Your task to perform on an android device: turn off priority inbox in the gmail app Image 0: 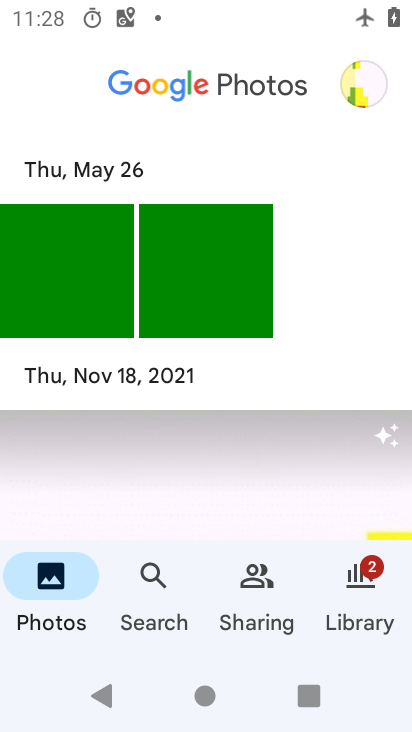
Step 0: press home button
Your task to perform on an android device: turn off priority inbox in the gmail app Image 1: 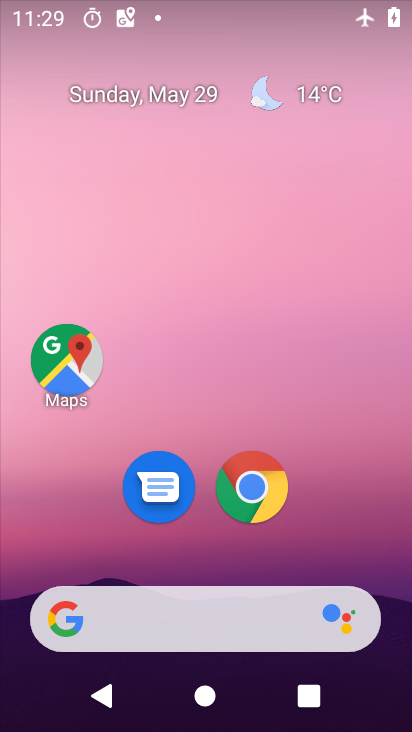
Step 1: drag from (397, 677) to (396, 6)
Your task to perform on an android device: turn off priority inbox in the gmail app Image 2: 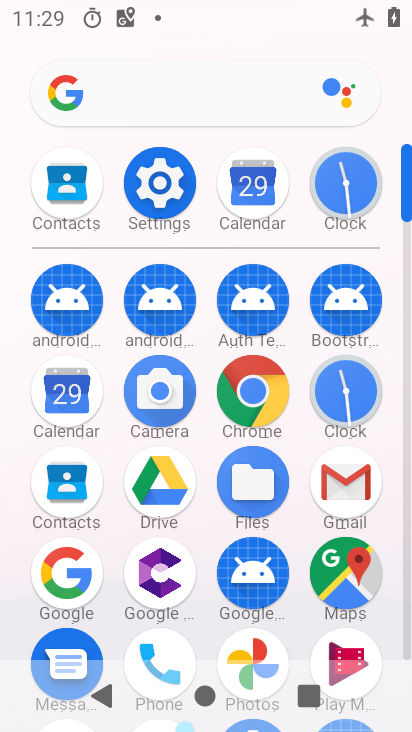
Step 2: click (166, 180)
Your task to perform on an android device: turn off priority inbox in the gmail app Image 3: 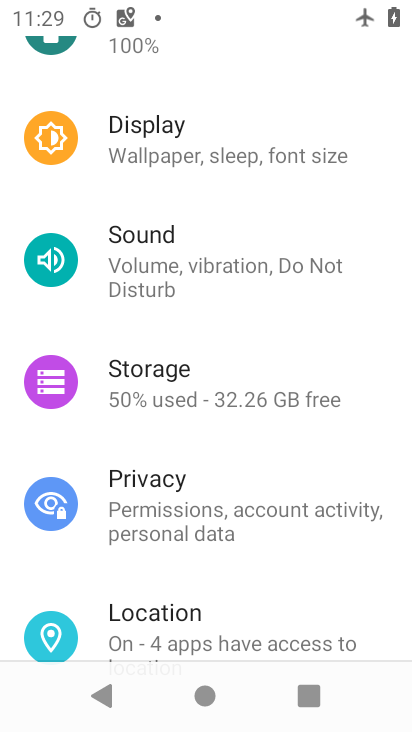
Step 3: drag from (269, 144) to (250, 596)
Your task to perform on an android device: turn off priority inbox in the gmail app Image 4: 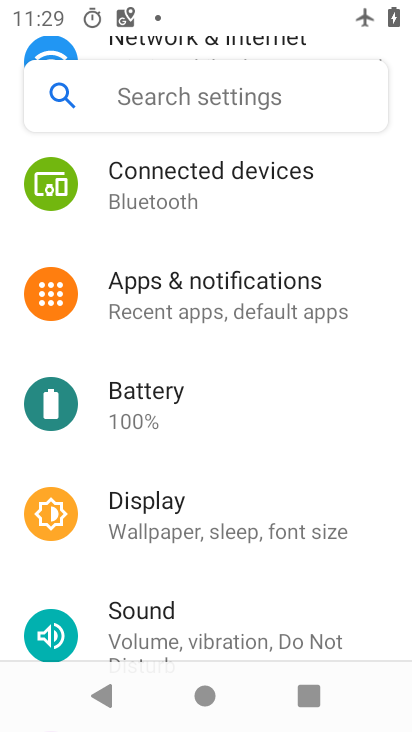
Step 4: drag from (336, 180) to (306, 612)
Your task to perform on an android device: turn off priority inbox in the gmail app Image 5: 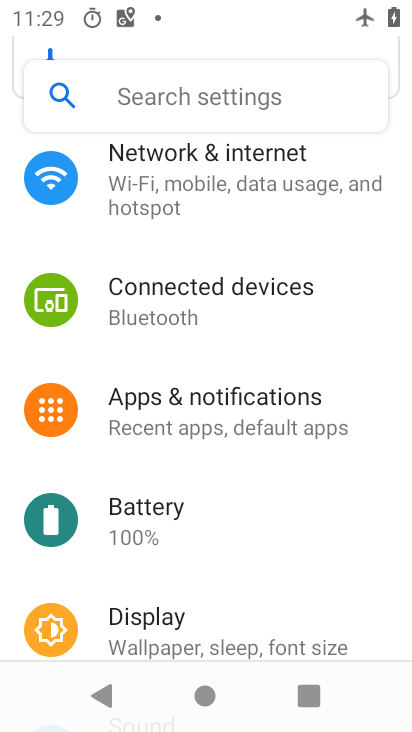
Step 5: click (228, 180)
Your task to perform on an android device: turn off priority inbox in the gmail app Image 6: 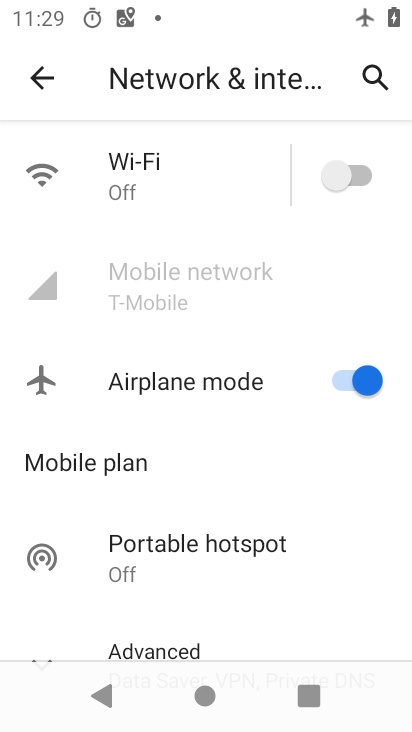
Step 6: click (343, 179)
Your task to perform on an android device: turn off priority inbox in the gmail app Image 7: 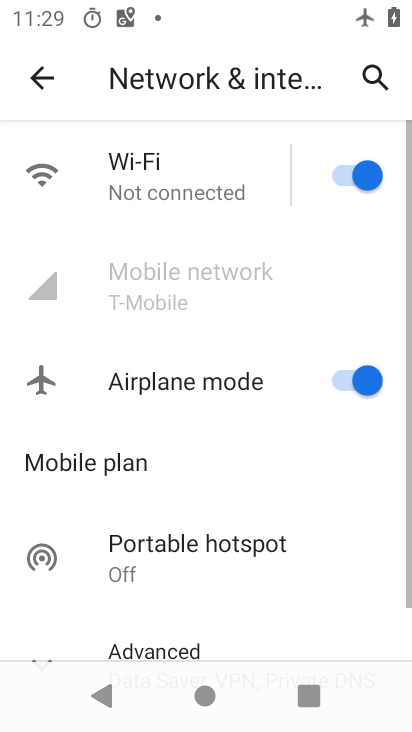
Step 7: click (335, 383)
Your task to perform on an android device: turn off priority inbox in the gmail app Image 8: 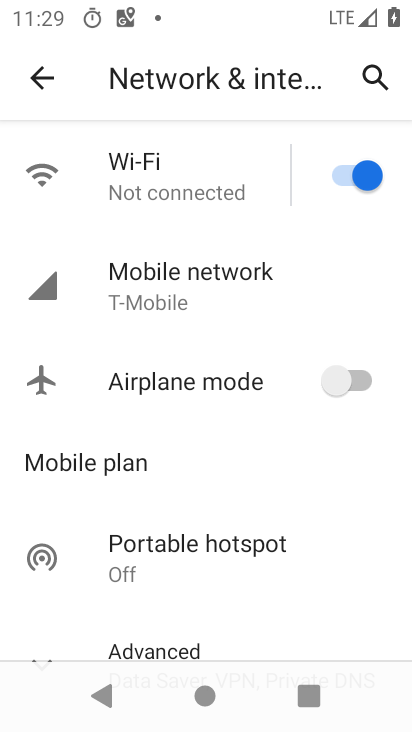
Step 8: click (32, 82)
Your task to perform on an android device: turn off priority inbox in the gmail app Image 9: 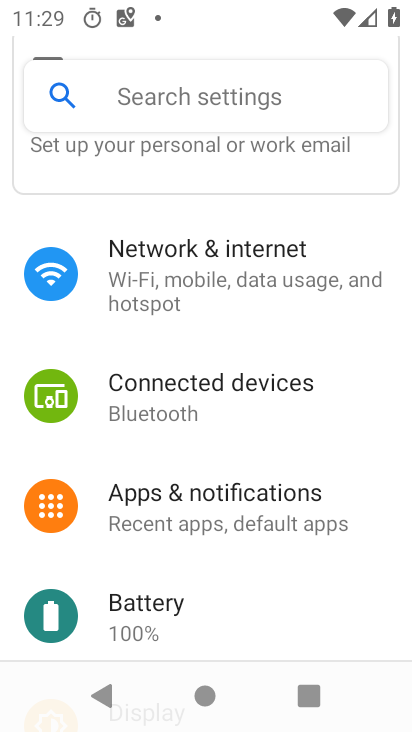
Step 9: press back button
Your task to perform on an android device: turn off priority inbox in the gmail app Image 10: 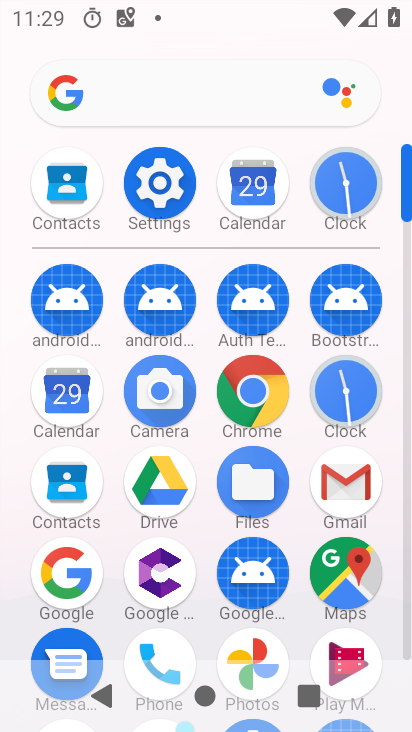
Step 10: click (343, 490)
Your task to perform on an android device: turn off priority inbox in the gmail app Image 11: 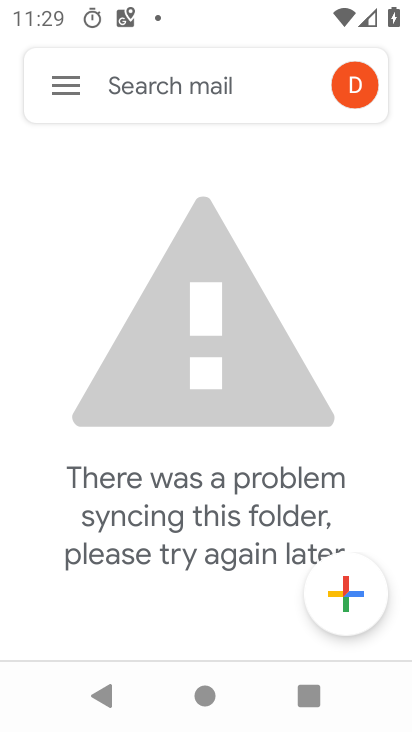
Step 11: click (67, 84)
Your task to perform on an android device: turn off priority inbox in the gmail app Image 12: 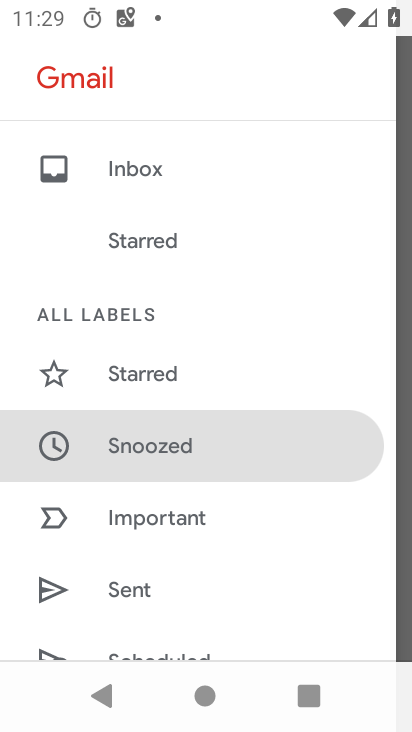
Step 12: drag from (254, 624) to (251, 260)
Your task to perform on an android device: turn off priority inbox in the gmail app Image 13: 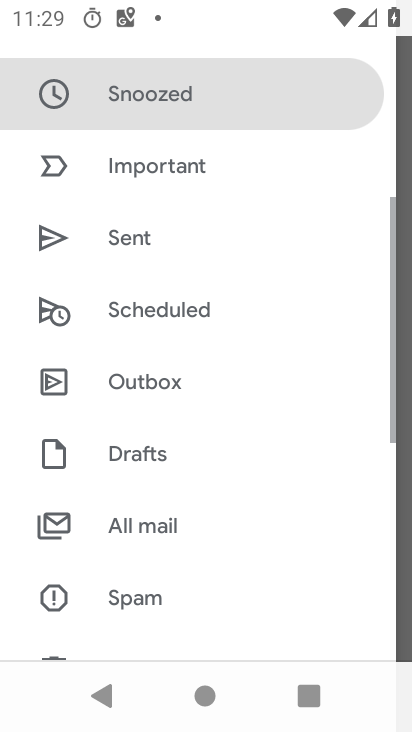
Step 13: drag from (304, 625) to (333, 201)
Your task to perform on an android device: turn off priority inbox in the gmail app Image 14: 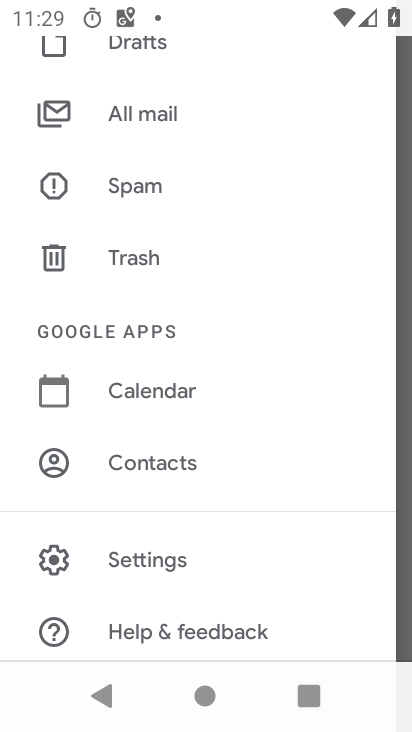
Step 14: drag from (292, 604) to (277, 322)
Your task to perform on an android device: turn off priority inbox in the gmail app Image 15: 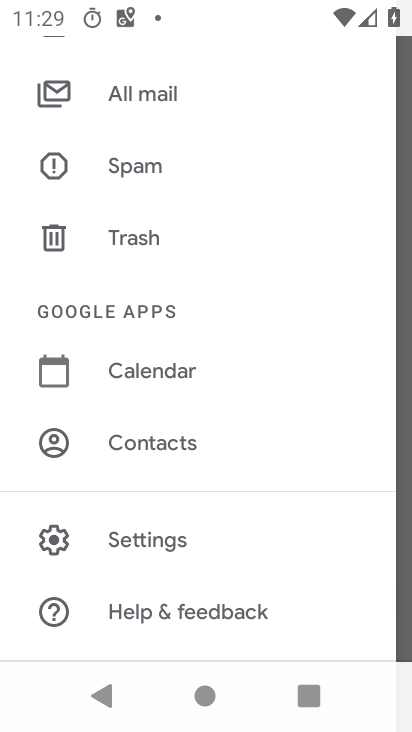
Step 15: click (157, 543)
Your task to perform on an android device: turn off priority inbox in the gmail app Image 16: 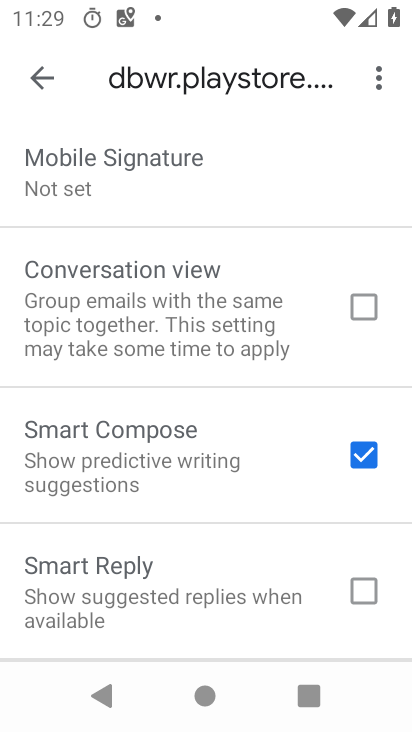
Step 16: click (355, 448)
Your task to perform on an android device: turn off priority inbox in the gmail app Image 17: 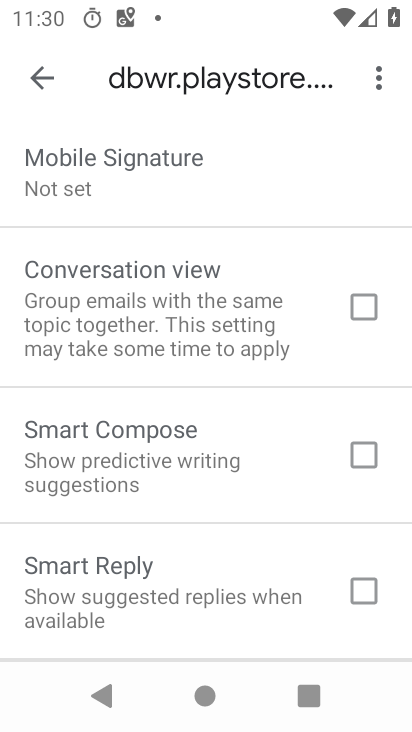
Step 17: drag from (193, 615) to (255, 277)
Your task to perform on an android device: turn off priority inbox in the gmail app Image 18: 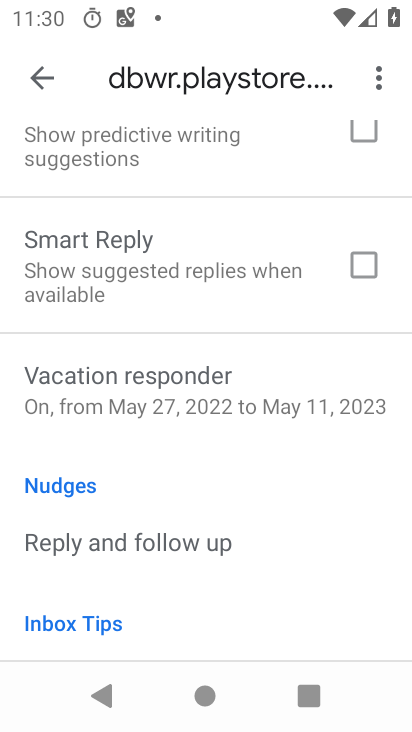
Step 18: drag from (200, 262) to (160, 562)
Your task to perform on an android device: turn off priority inbox in the gmail app Image 19: 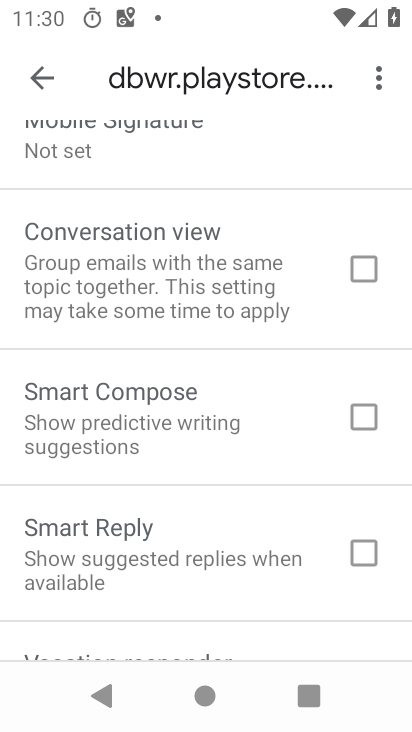
Step 19: drag from (232, 180) to (202, 520)
Your task to perform on an android device: turn off priority inbox in the gmail app Image 20: 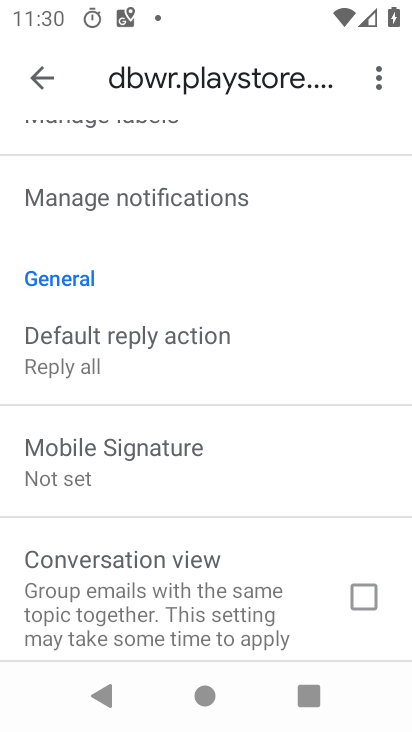
Step 20: drag from (224, 242) to (214, 528)
Your task to perform on an android device: turn off priority inbox in the gmail app Image 21: 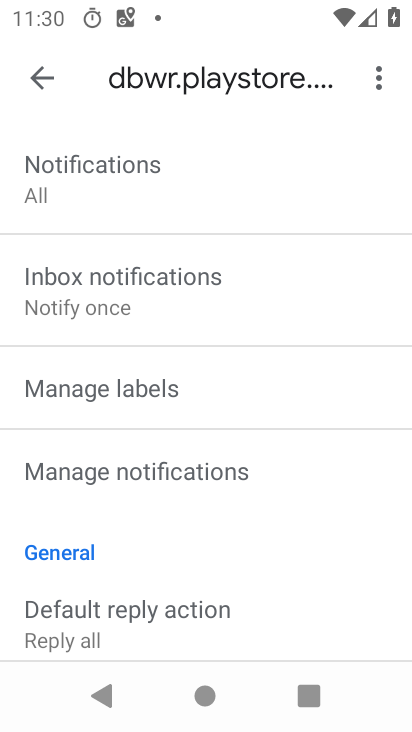
Step 21: click (80, 293)
Your task to perform on an android device: turn off priority inbox in the gmail app Image 22: 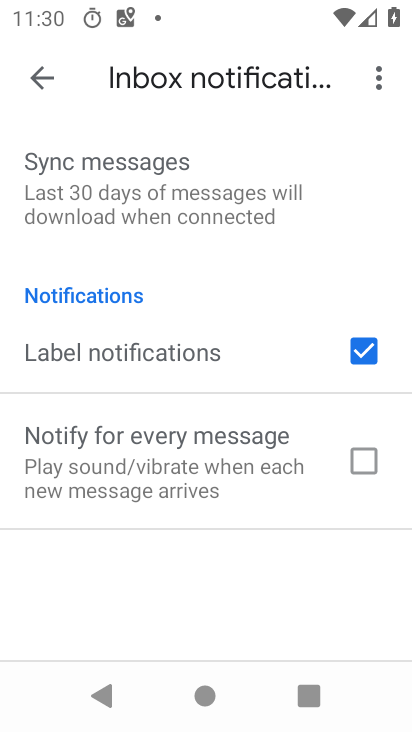
Step 22: click (42, 75)
Your task to perform on an android device: turn off priority inbox in the gmail app Image 23: 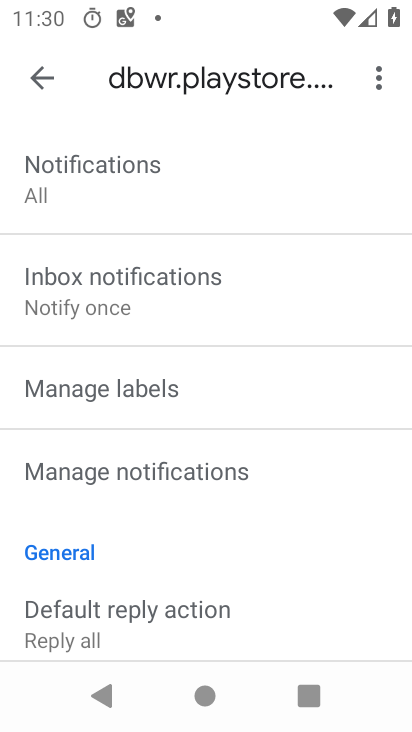
Step 23: click (35, 77)
Your task to perform on an android device: turn off priority inbox in the gmail app Image 24: 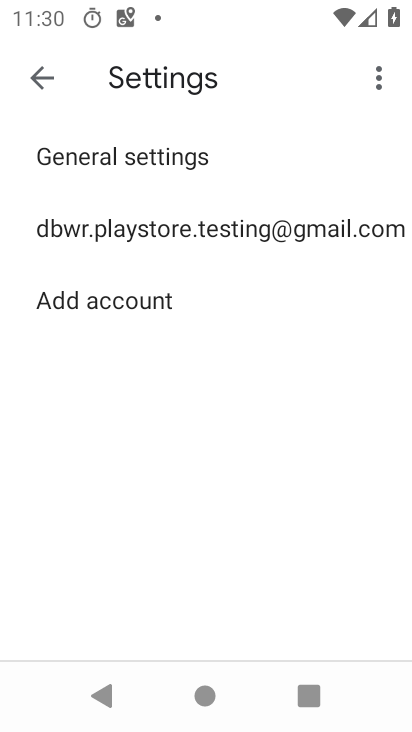
Step 24: click (68, 226)
Your task to perform on an android device: turn off priority inbox in the gmail app Image 25: 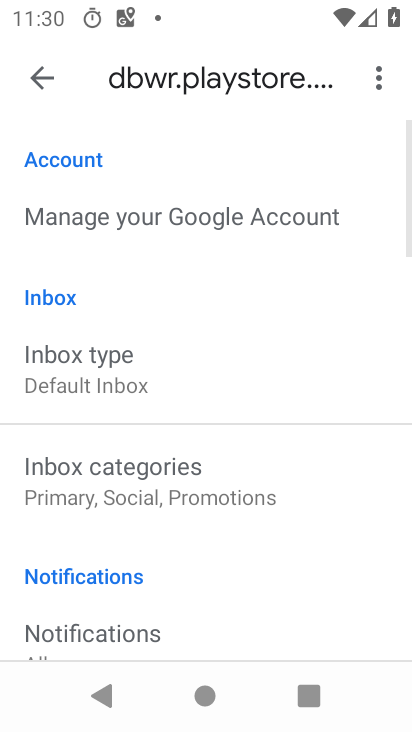
Step 25: click (78, 361)
Your task to perform on an android device: turn off priority inbox in the gmail app Image 26: 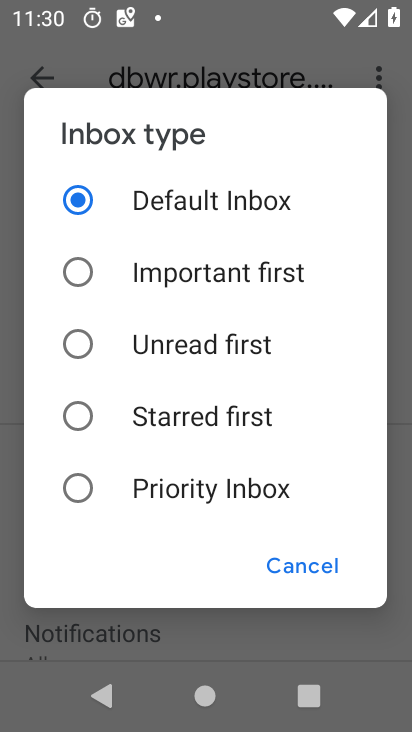
Step 26: task complete